Your task to perform on an android device: turn on data saver in the chrome app Image 0: 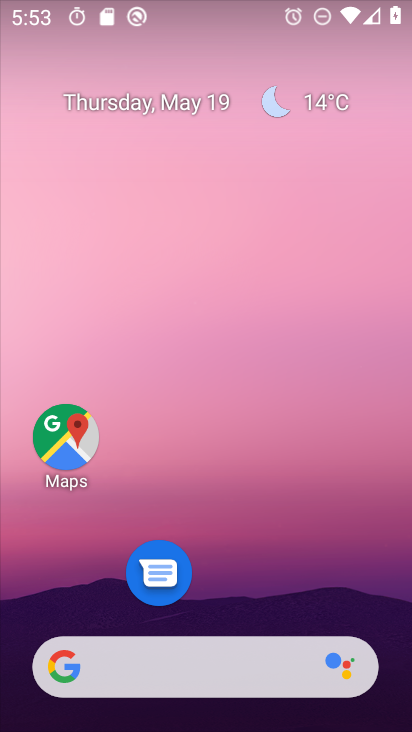
Step 0: drag from (245, 604) to (294, 34)
Your task to perform on an android device: turn on data saver in the chrome app Image 1: 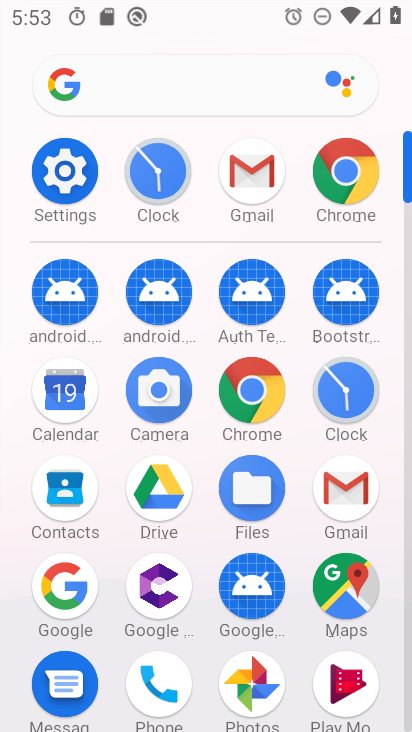
Step 1: click (369, 207)
Your task to perform on an android device: turn on data saver in the chrome app Image 2: 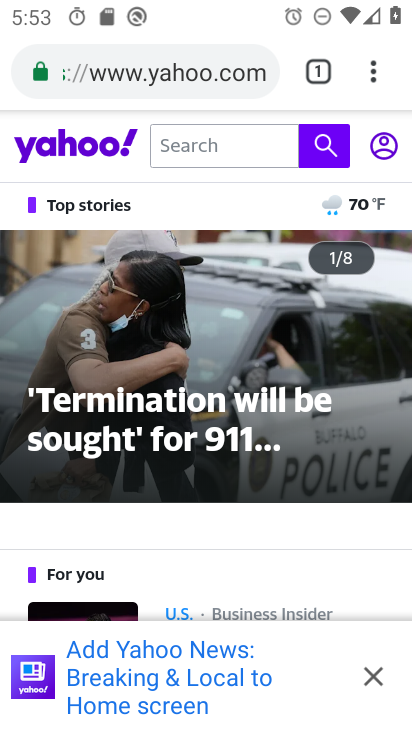
Step 2: click (367, 70)
Your task to perform on an android device: turn on data saver in the chrome app Image 3: 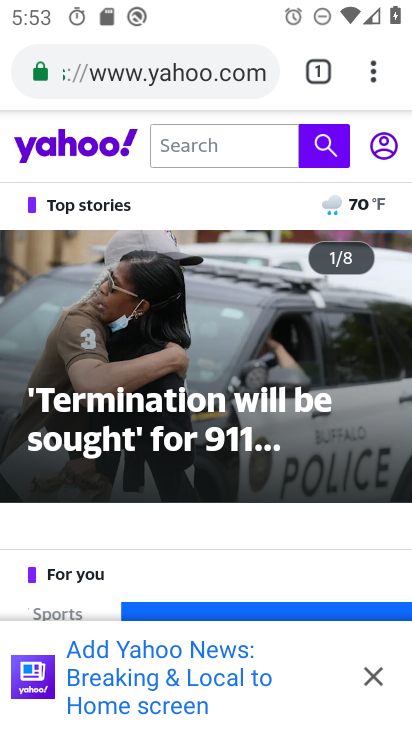
Step 3: click (371, 80)
Your task to perform on an android device: turn on data saver in the chrome app Image 4: 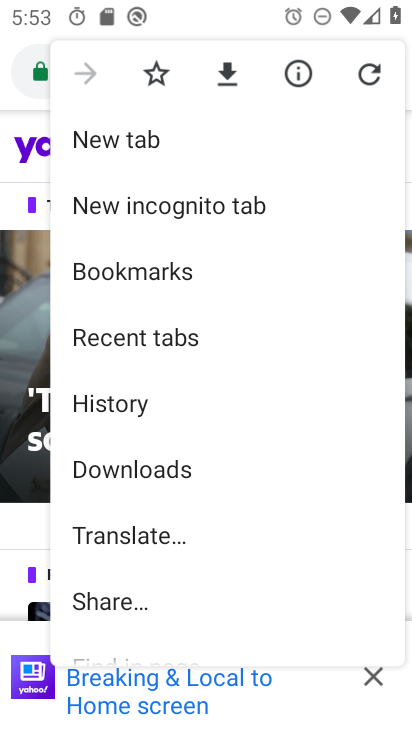
Step 4: click (202, 165)
Your task to perform on an android device: turn on data saver in the chrome app Image 5: 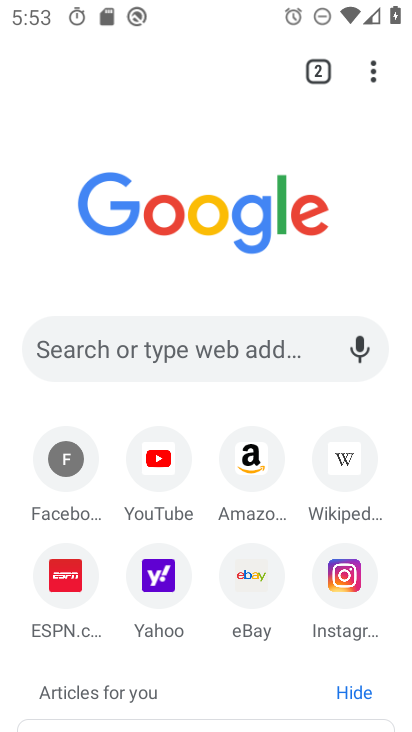
Step 5: click (375, 76)
Your task to perform on an android device: turn on data saver in the chrome app Image 6: 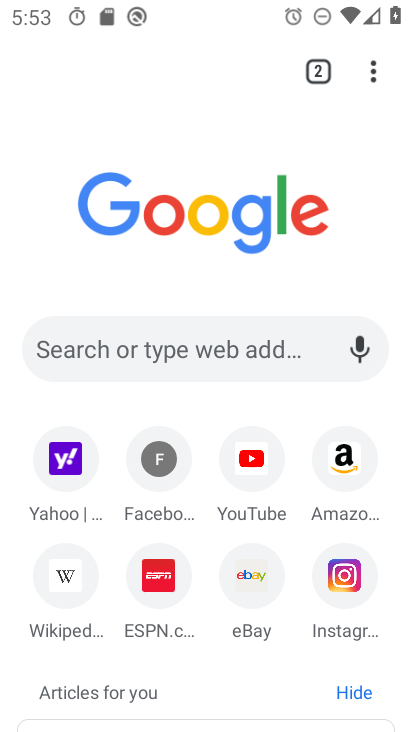
Step 6: click (372, 82)
Your task to perform on an android device: turn on data saver in the chrome app Image 7: 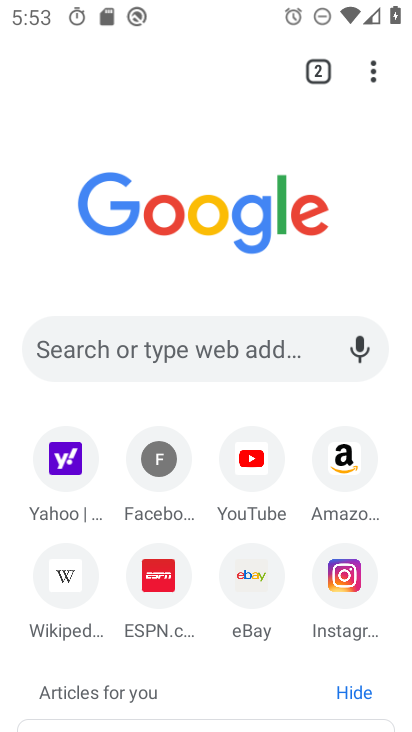
Step 7: click (372, 80)
Your task to perform on an android device: turn on data saver in the chrome app Image 8: 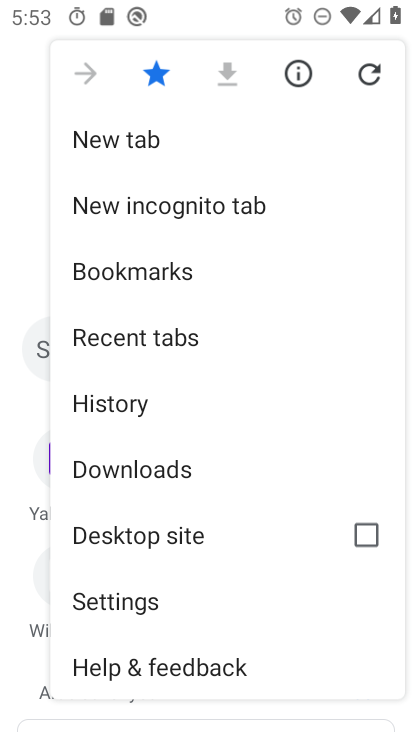
Step 8: drag from (152, 539) to (204, 146)
Your task to perform on an android device: turn on data saver in the chrome app Image 9: 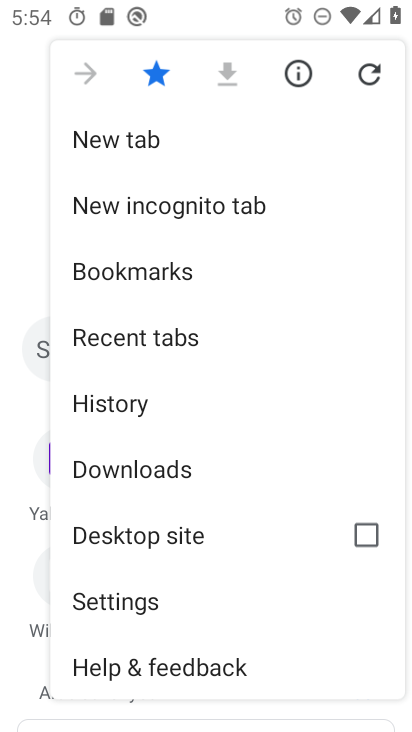
Step 9: click (119, 606)
Your task to perform on an android device: turn on data saver in the chrome app Image 10: 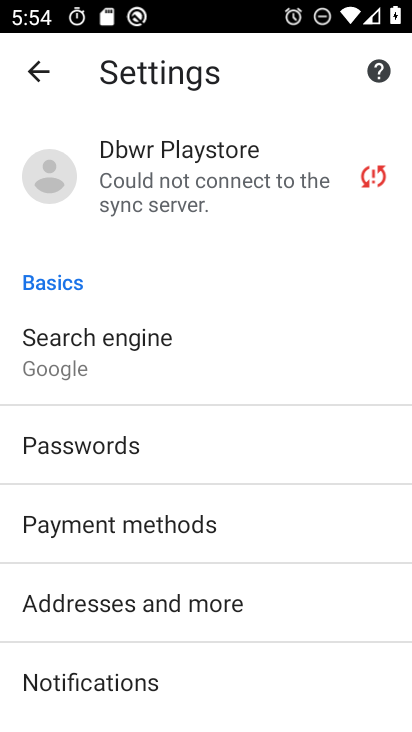
Step 10: drag from (135, 628) to (155, 282)
Your task to perform on an android device: turn on data saver in the chrome app Image 11: 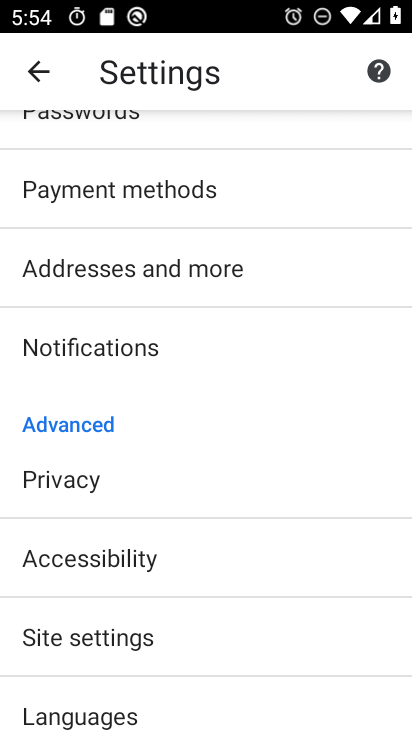
Step 11: drag from (126, 667) to (170, 350)
Your task to perform on an android device: turn on data saver in the chrome app Image 12: 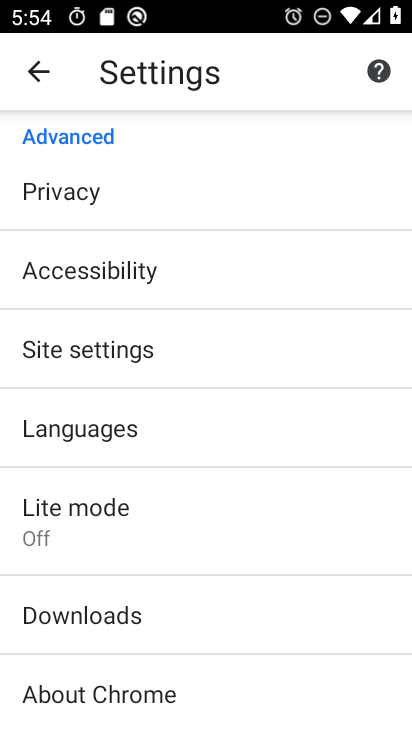
Step 12: click (69, 531)
Your task to perform on an android device: turn on data saver in the chrome app Image 13: 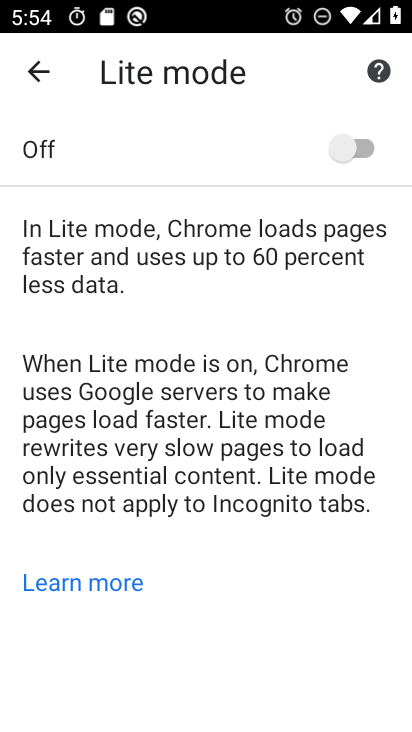
Step 13: click (352, 156)
Your task to perform on an android device: turn on data saver in the chrome app Image 14: 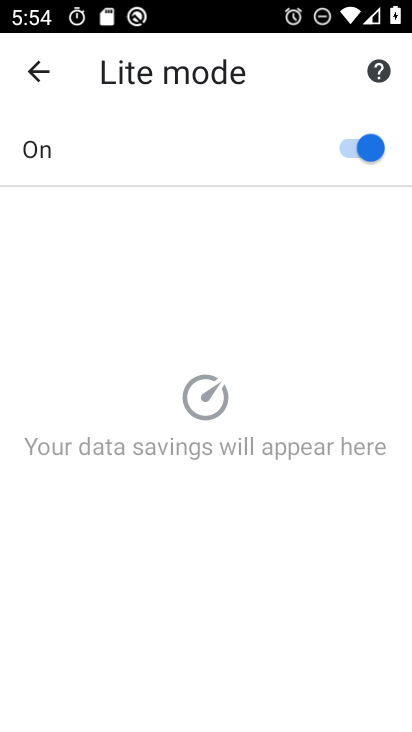
Step 14: task complete